Your task to perform on an android device: When is my next meeting? Image 0: 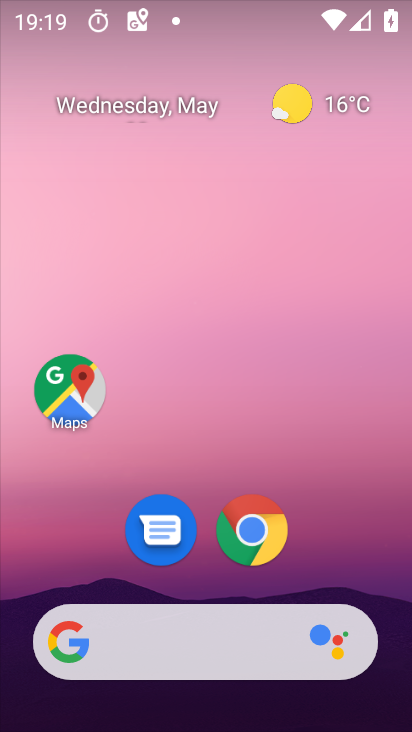
Step 0: drag from (158, 578) to (200, 275)
Your task to perform on an android device: When is my next meeting? Image 1: 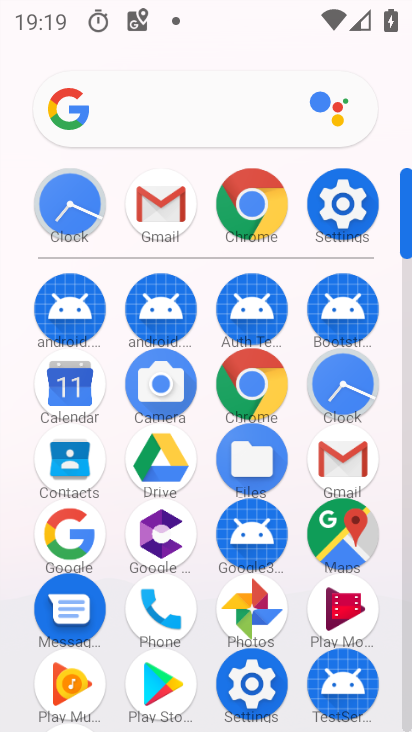
Step 1: click (54, 392)
Your task to perform on an android device: When is my next meeting? Image 2: 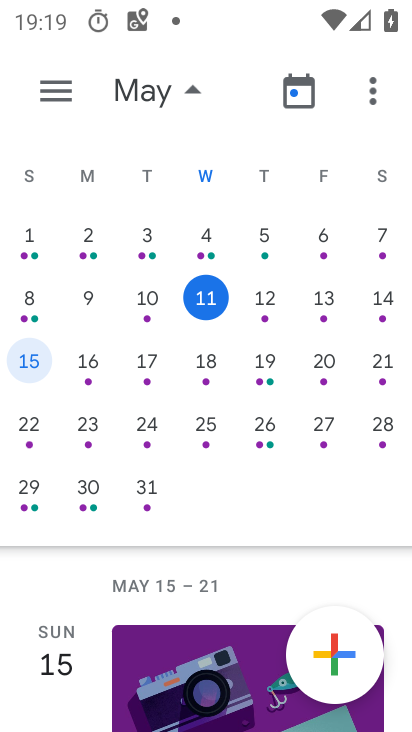
Step 2: click (257, 303)
Your task to perform on an android device: When is my next meeting? Image 3: 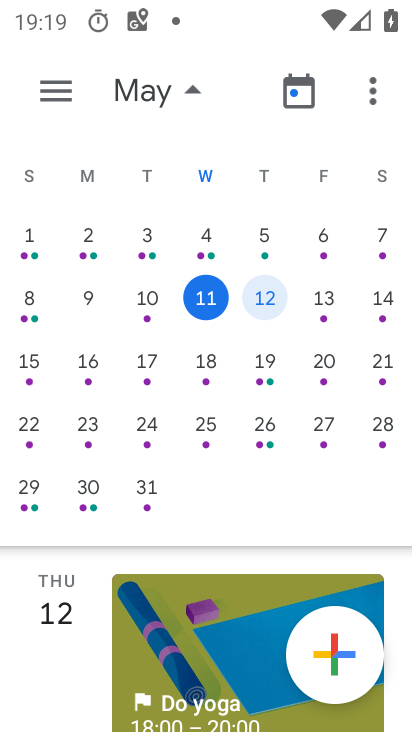
Step 3: click (307, 298)
Your task to perform on an android device: When is my next meeting? Image 4: 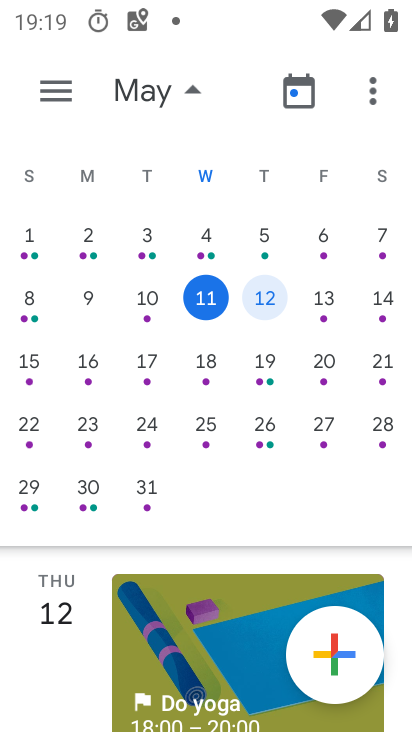
Step 4: click (386, 308)
Your task to perform on an android device: When is my next meeting? Image 5: 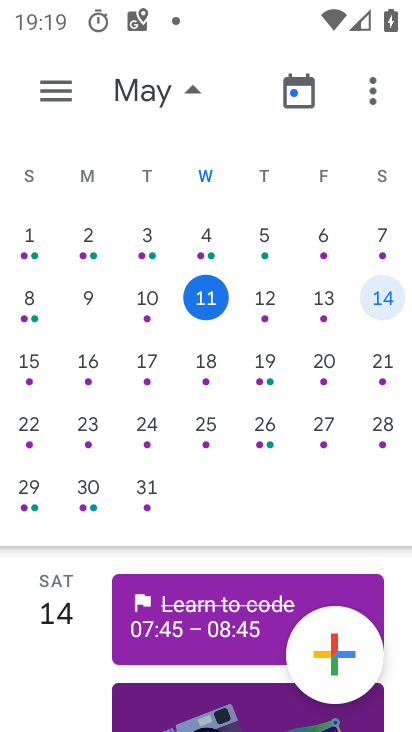
Step 5: drag from (320, 560) to (336, 461)
Your task to perform on an android device: When is my next meeting? Image 6: 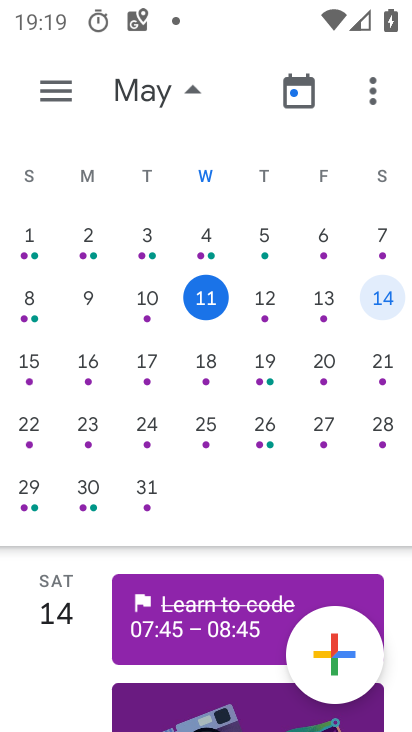
Step 6: drag from (197, 556) to (227, 377)
Your task to perform on an android device: When is my next meeting? Image 7: 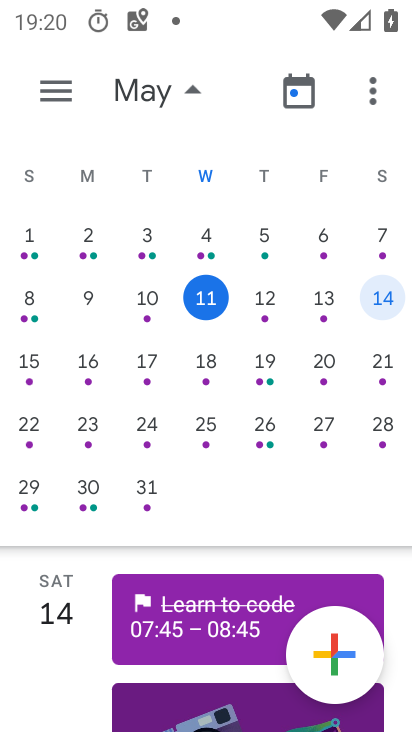
Step 7: click (22, 351)
Your task to perform on an android device: When is my next meeting? Image 8: 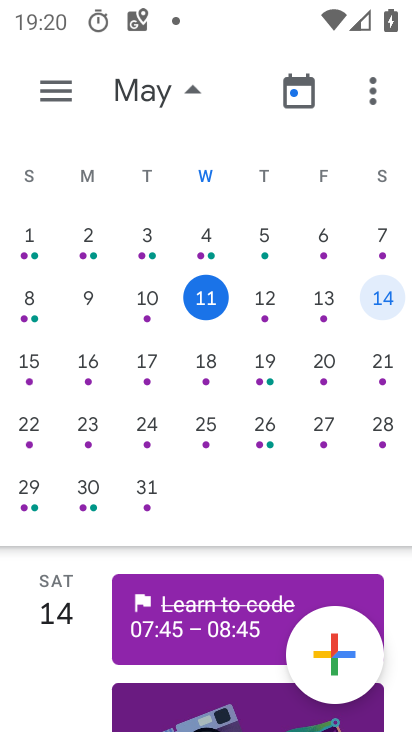
Step 8: click (35, 380)
Your task to perform on an android device: When is my next meeting? Image 9: 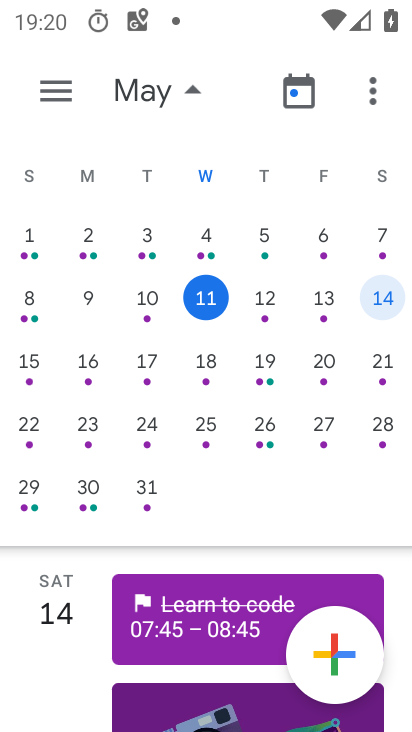
Step 9: click (90, 362)
Your task to perform on an android device: When is my next meeting? Image 10: 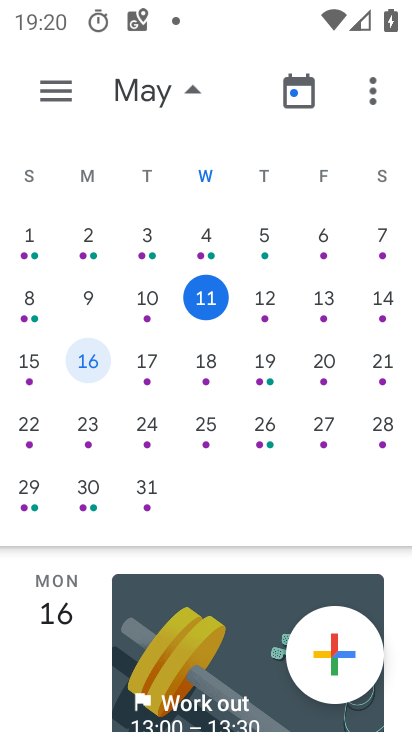
Step 10: click (49, 82)
Your task to perform on an android device: When is my next meeting? Image 11: 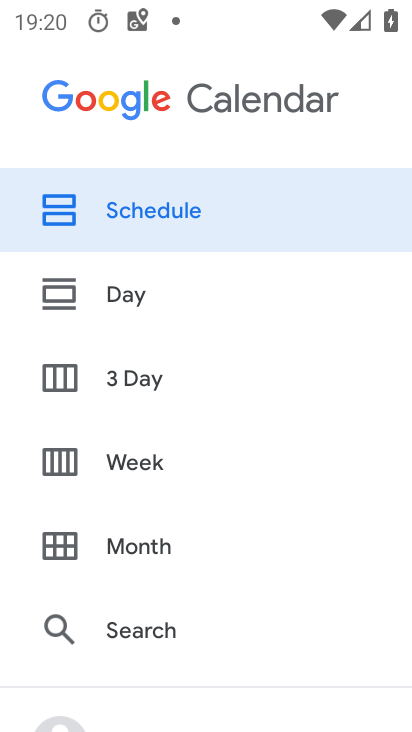
Step 11: drag from (198, 589) to (269, 205)
Your task to perform on an android device: When is my next meeting? Image 12: 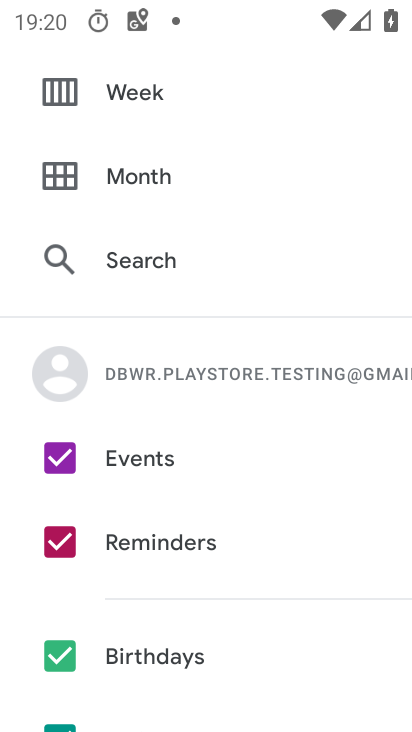
Step 12: drag from (198, 448) to (237, 269)
Your task to perform on an android device: When is my next meeting? Image 13: 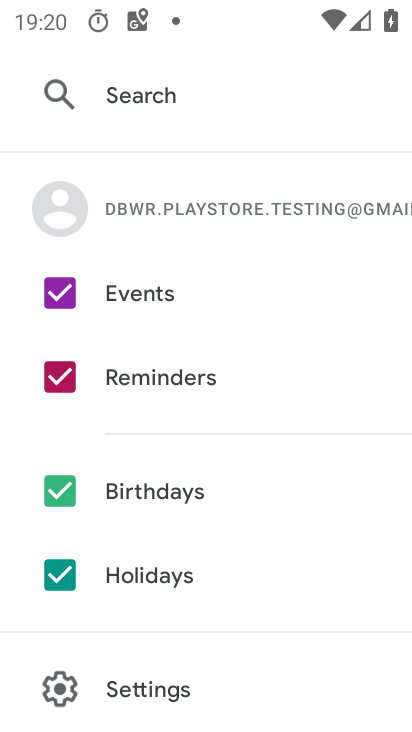
Step 13: click (61, 584)
Your task to perform on an android device: When is my next meeting? Image 14: 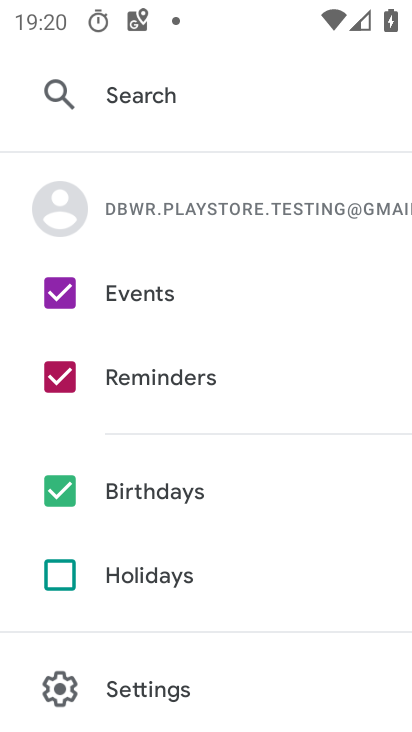
Step 14: click (55, 481)
Your task to perform on an android device: When is my next meeting? Image 15: 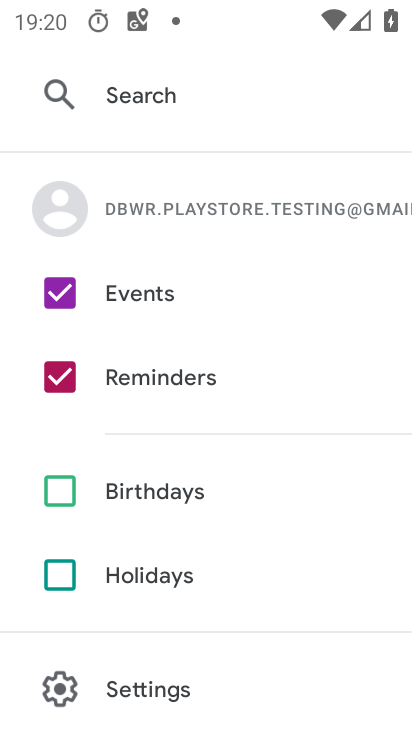
Step 15: click (59, 384)
Your task to perform on an android device: When is my next meeting? Image 16: 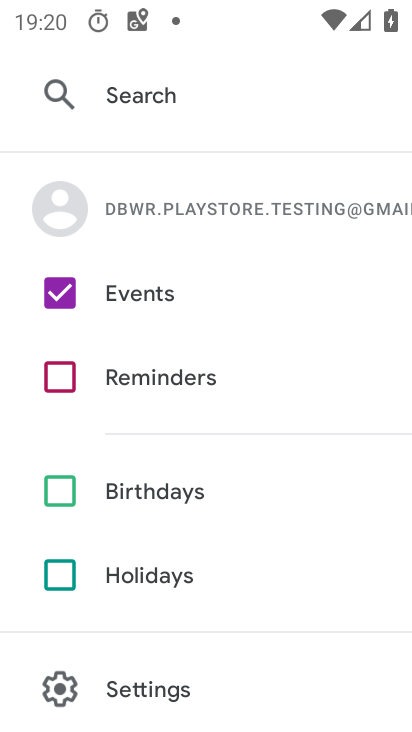
Step 16: click (314, 492)
Your task to perform on an android device: When is my next meeting? Image 17: 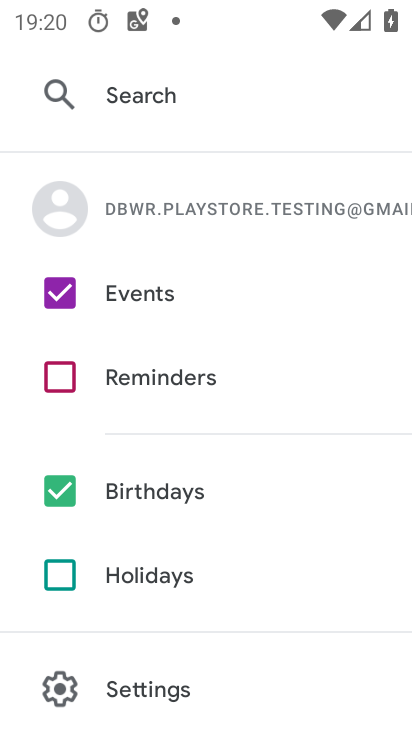
Step 17: click (60, 495)
Your task to perform on an android device: When is my next meeting? Image 18: 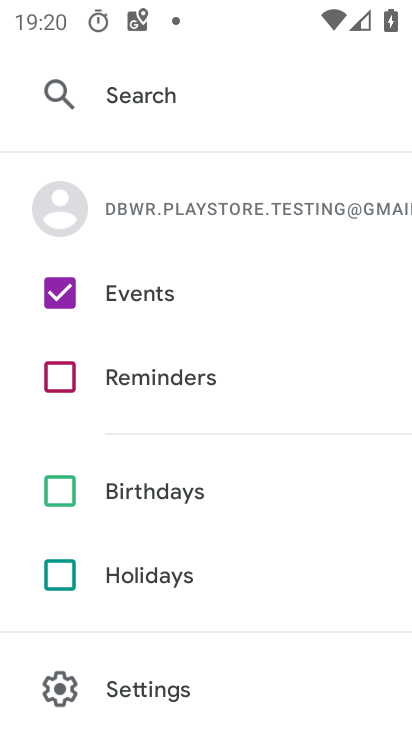
Step 18: click (27, 159)
Your task to perform on an android device: When is my next meeting? Image 19: 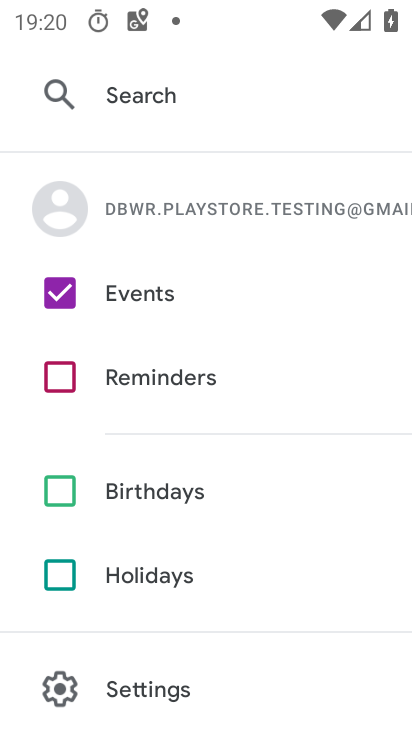
Step 19: drag from (196, 124) to (245, 679)
Your task to perform on an android device: When is my next meeting? Image 20: 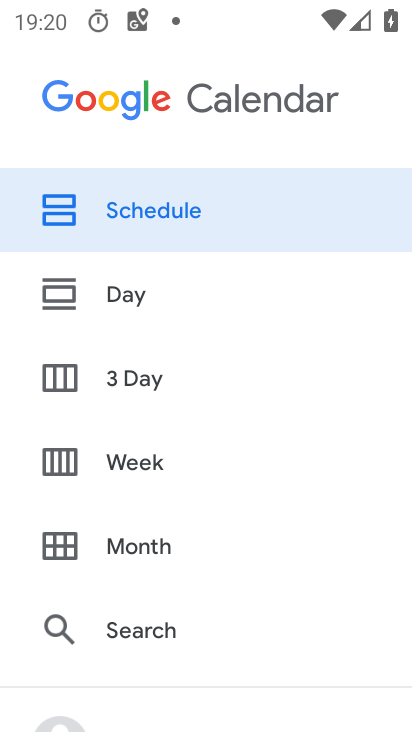
Step 20: drag from (171, 215) to (194, 405)
Your task to perform on an android device: When is my next meeting? Image 21: 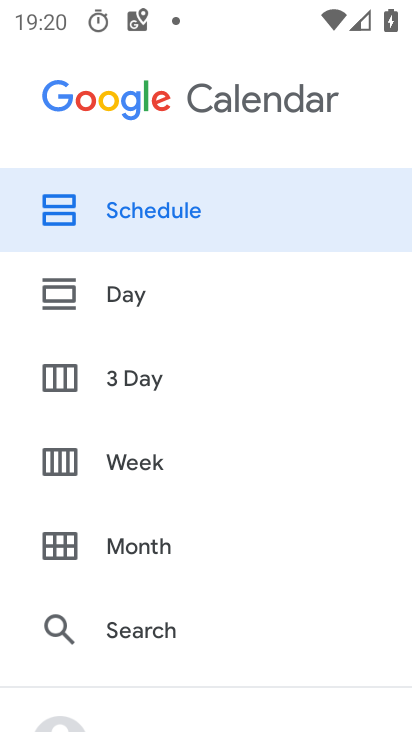
Step 21: click (167, 212)
Your task to perform on an android device: When is my next meeting? Image 22: 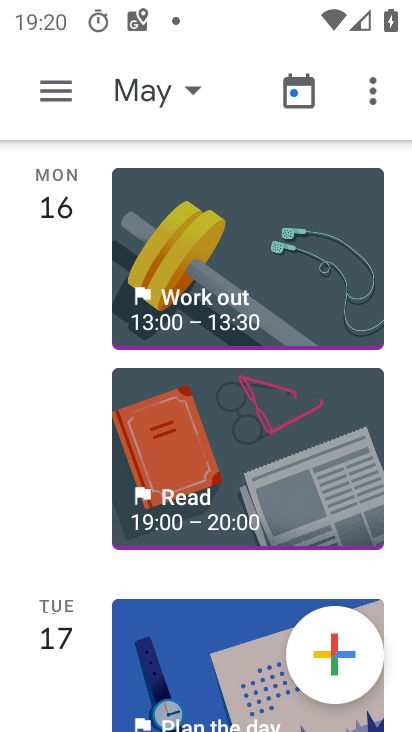
Step 22: drag from (165, 238) to (165, 537)
Your task to perform on an android device: When is my next meeting? Image 23: 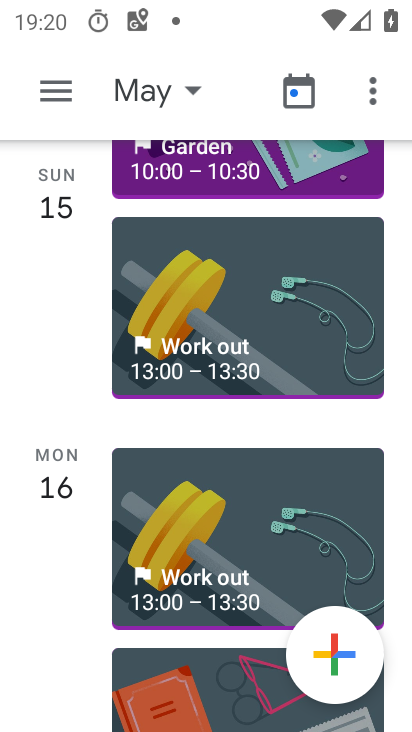
Step 23: drag from (158, 278) to (180, 488)
Your task to perform on an android device: When is my next meeting? Image 24: 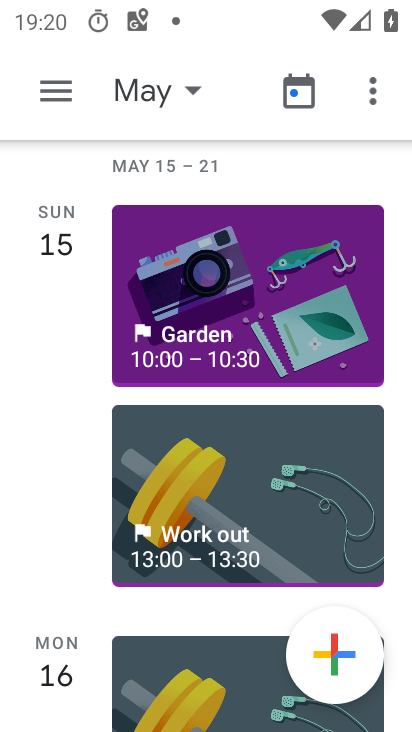
Step 24: drag from (177, 302) to (171, 477)
Your task to perform on an android device: When is my next meeting? Image 25: 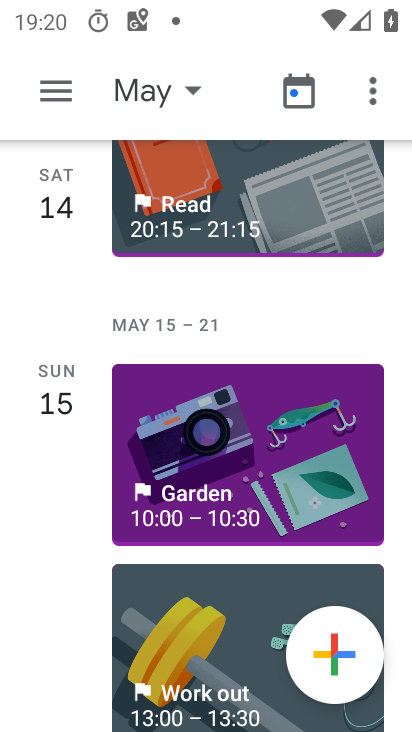
Step 25: drag from (237, 240) to (224, 565)
Your task to perform on an android device: When is my next meeting? Image 26: 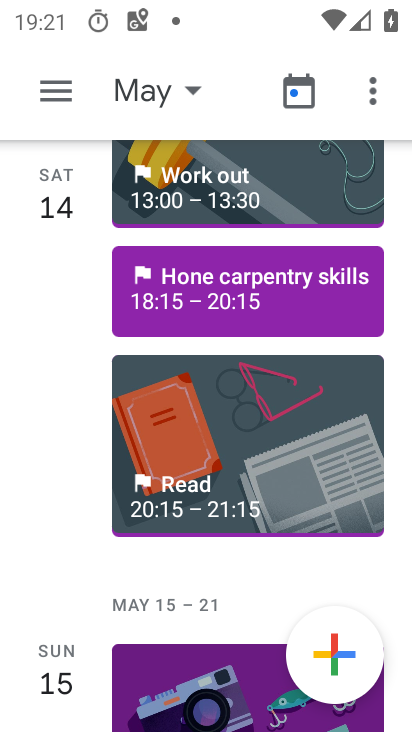
Step 26: drag from (178, 171) to (191, 482)
Your task to perform on an android device: When is my next meeting? Image 27: 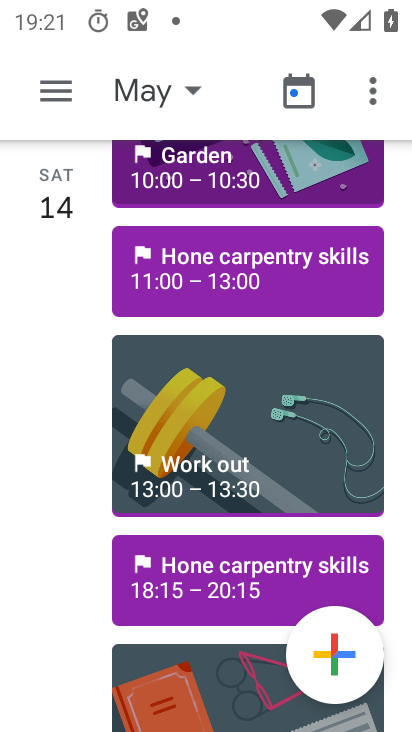
Step 27: drag from (165, 235) to (136, 562)
Your task to perform on an android device: When is my next meeting? Image 28: 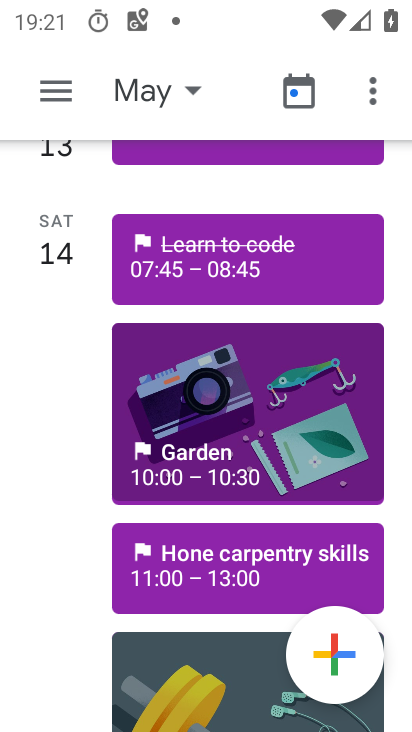
Step 28: drag from (226, 197) to (225, 527)
Your task to perform on an android device: When is my next meeting? Image 29: 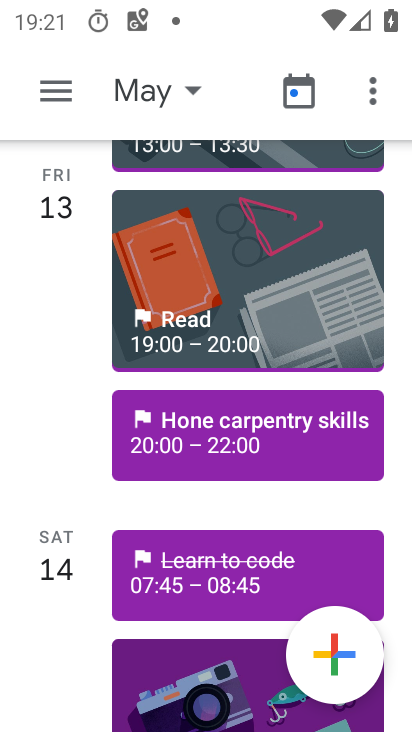
Step 29: drag from (239, 240) to (220, 422)
Your task to perform on an android device: When is my next meeting? Image 30: 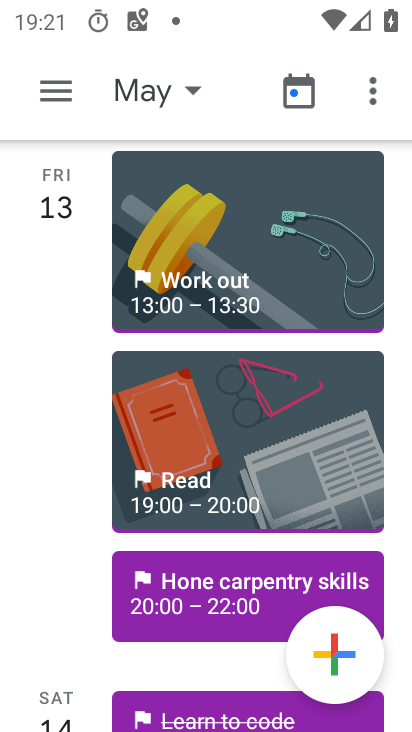
Step 30: drag from (188, 215) to (165, 555)
Your task to perform on an android device: When is my next meeting? Image 31: 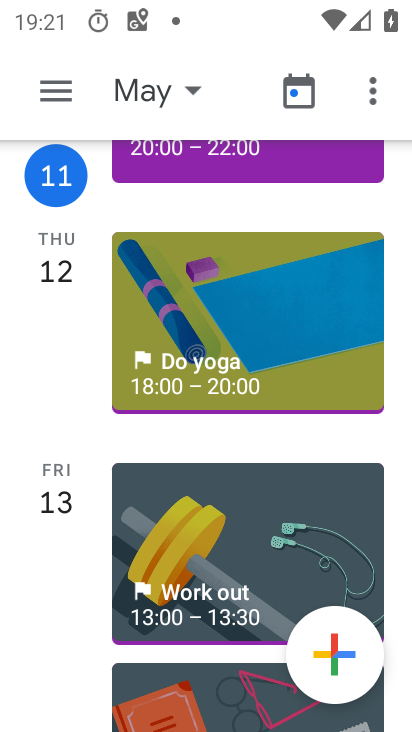
Step 31: drag from (180, 176) to (172, 550)
Your task to perform on an android device: When is my next meeting? Image 32: 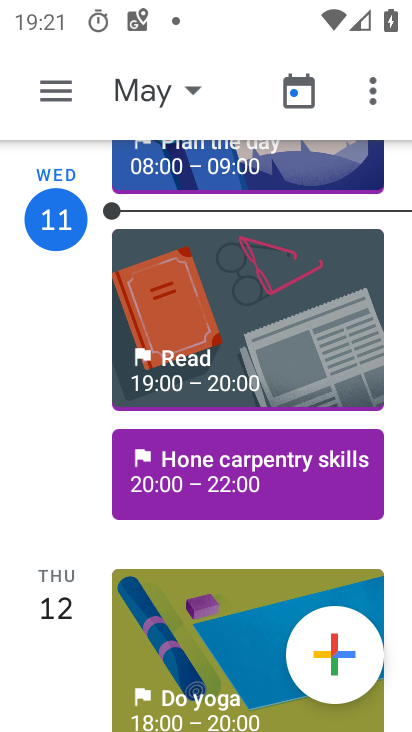
Step 32: click (184, 90)
Your task to perform on an android device: When is my next meeting? Image 33: 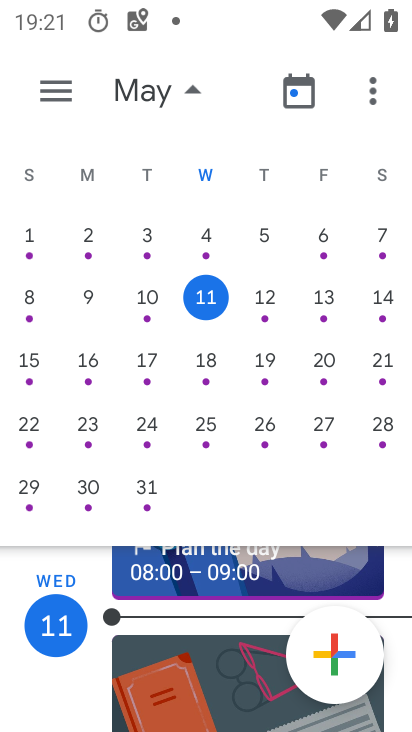
Step 33: click (158, 355)
Your task to perform on an android device: When is my next meeting? Image 34: 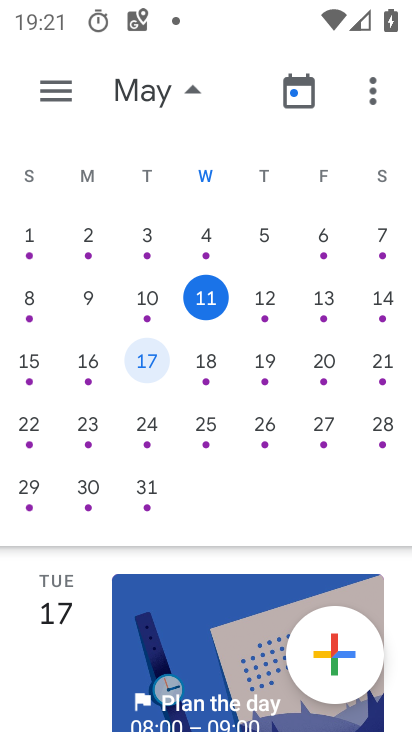
Step 34: click (208, 358)
Your task to perform on an android device: When is my next meeting? Image 35: 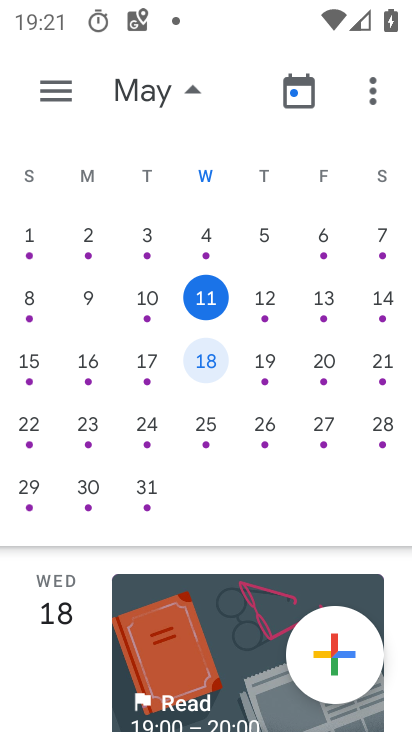
Step 35: click (88, 359)
Your task to perform on an android device: When is my next meeting? Image 36: 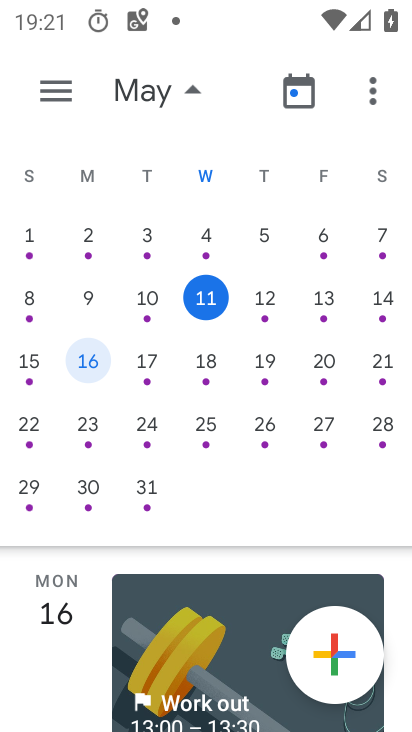
Step 36: click (272, 353)
Your task to perform on an android device: When is my next meeting? Image 37: 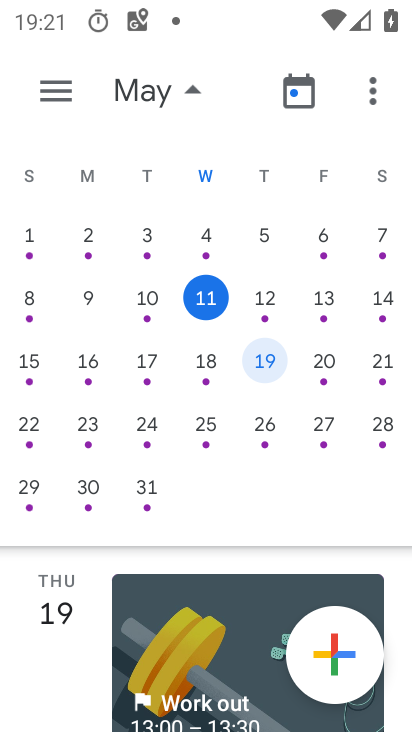
Step 37: click (326, 353)
Your task to perform on an android device: When is my next meeting? Image 38: 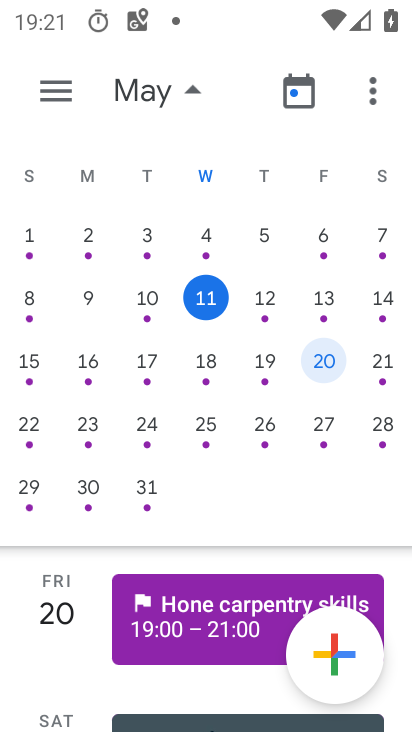
Step 38: click (364, 368)
Your task to perform on an android device: When is my next meeting? Image 39: 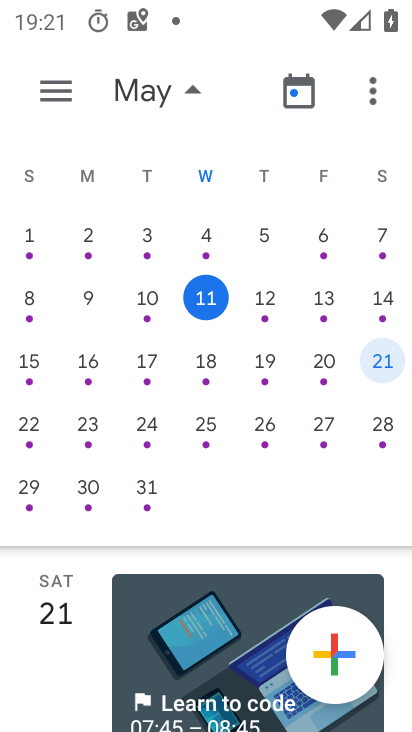
Step 39: click (35, 427)
Your task to perform on an android device: When is my next meeting? Image 40: 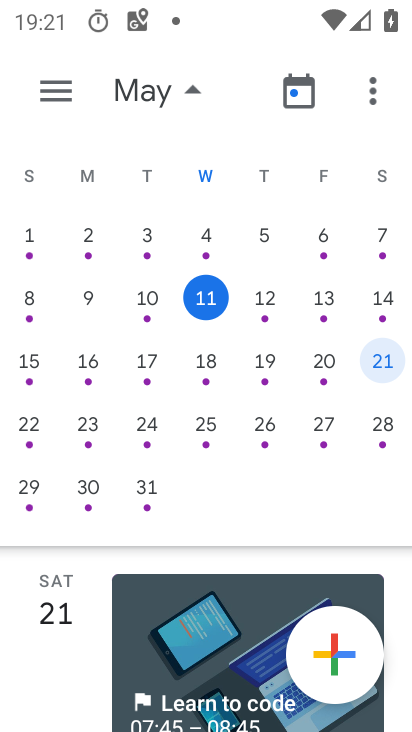
Step 40: task complete